Your task to perform on an android device: change your default location settings in chrome Image 0: 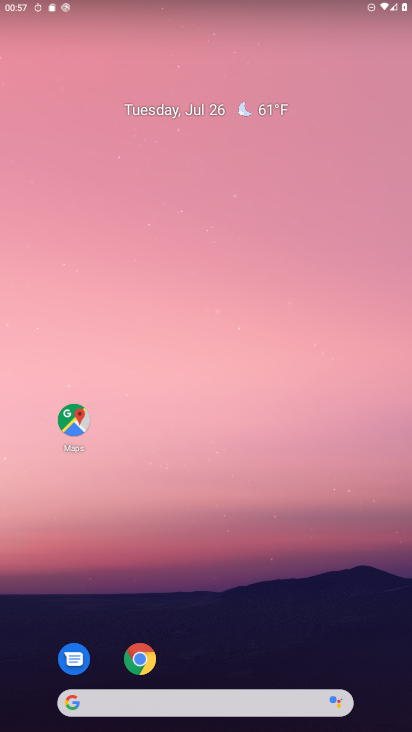
Step 0: drag from (76, 611) to (309, 125)
Your task to perform on an android device: change your default location settings in chrome Image 1: 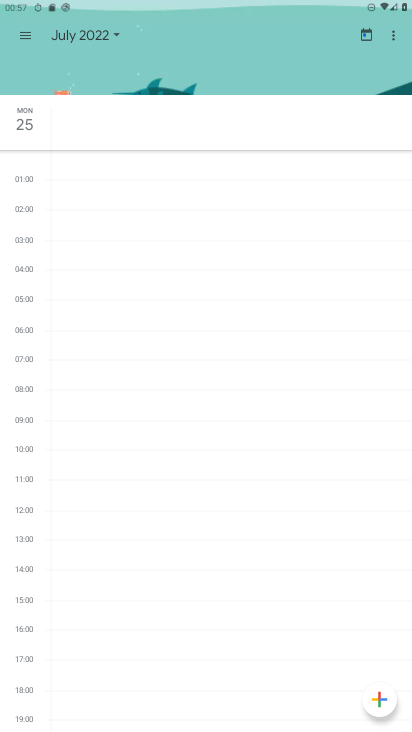
Step 1: press home button
Your task to perform on an android device: change your default location settings in chrome Image 2: 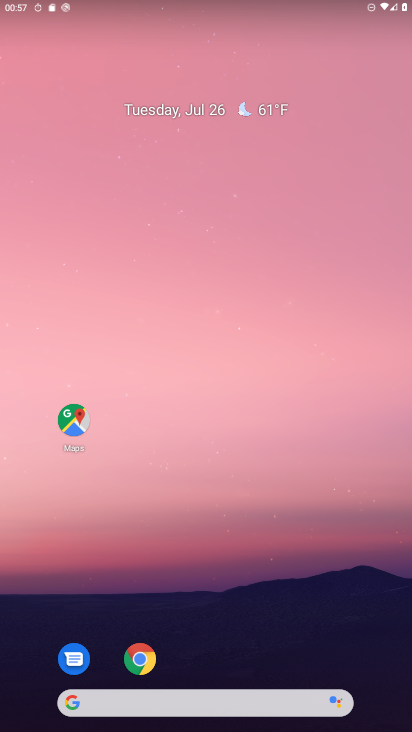
Step 2: click (152, 655)
Your task to perform on an android device: change your default location settings in chrome Image 3: 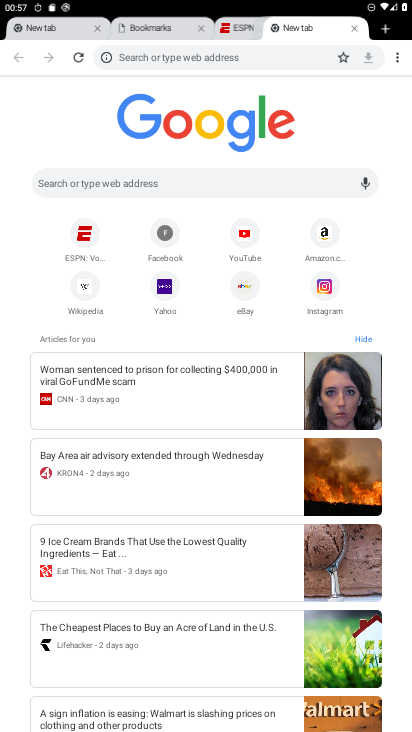
Step 3: click (397, 62)
Your task to perform on an android device: change your default location settings in chrome Image 4: 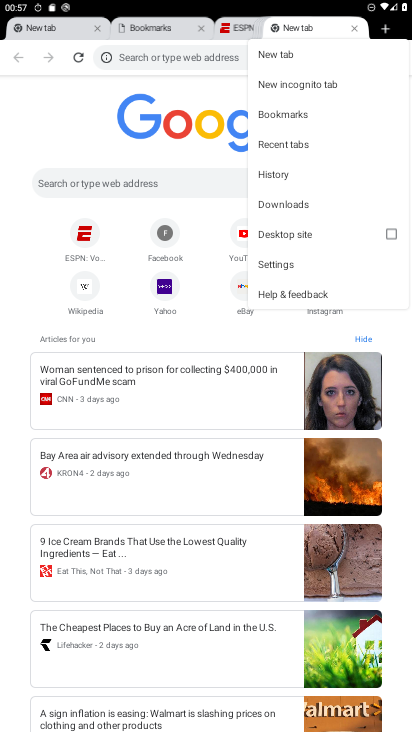
Step 4: click (276, 262)
Your task to perform on an android device: change your default location settings in chrome Image 5: 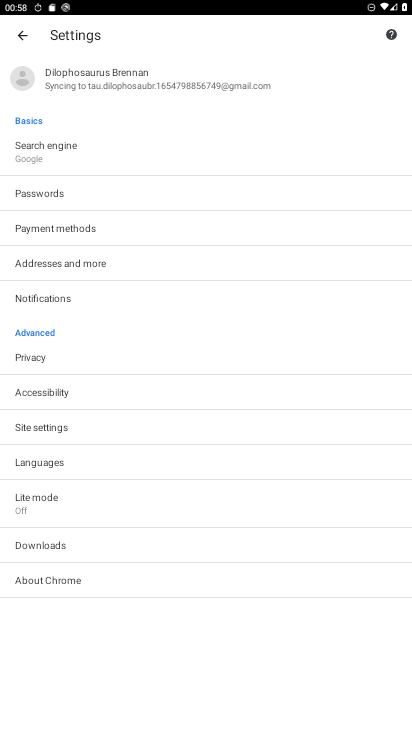
Step 5: click (62, 430)
Your task to perform on an android device: change your default location settings in chrome Image 6: 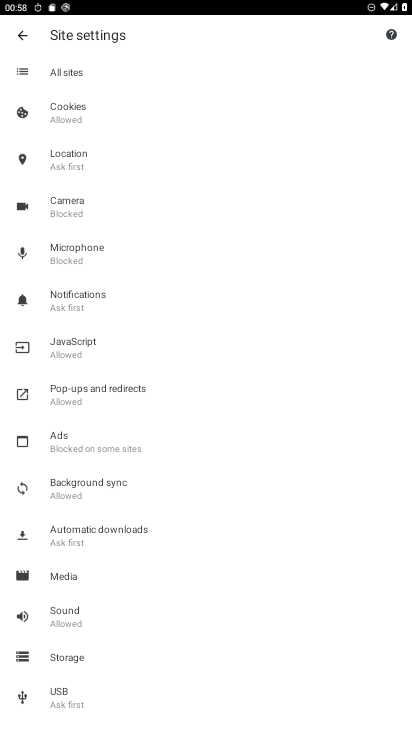
Step 6: click (78, 160)
Your task to perform on an android device: change your default location settings in chrome Image 7: 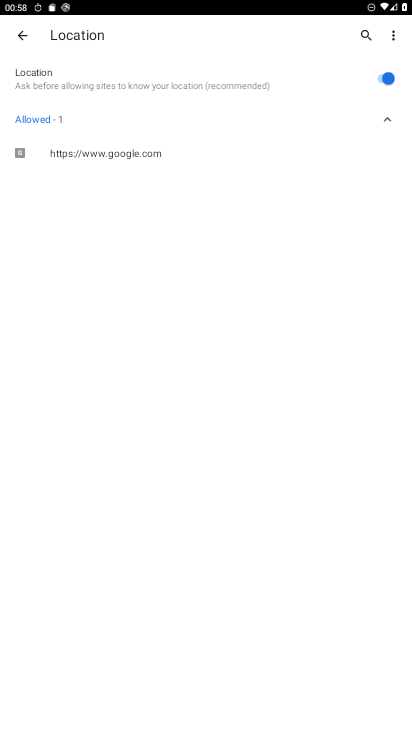
Step 7: task complete